Your task to perform on an android device: toggle notifications settings in the gmail app Image 0: 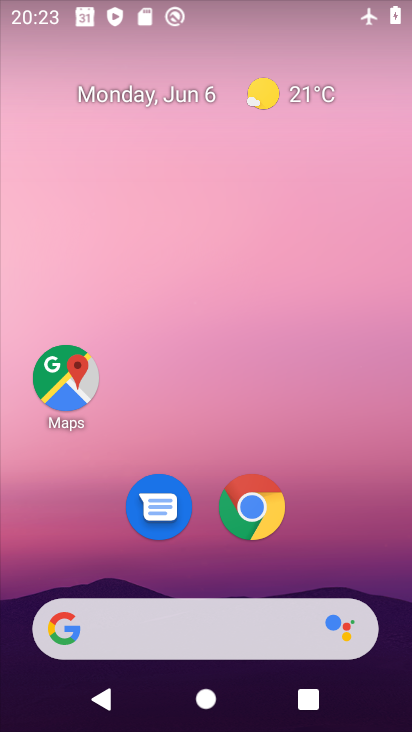
Step 0: drag from (221, 574) to (234, 2)
Your task to perform on an android device: toggle notifications settings in the gmail app Image 1: 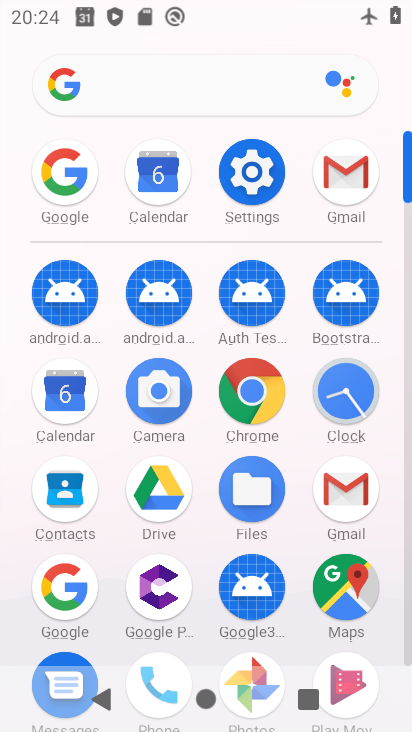
Step 1: click (252, 180)
Your task to perform on an android device: toggle notifications settings in the gmail app Image 2: 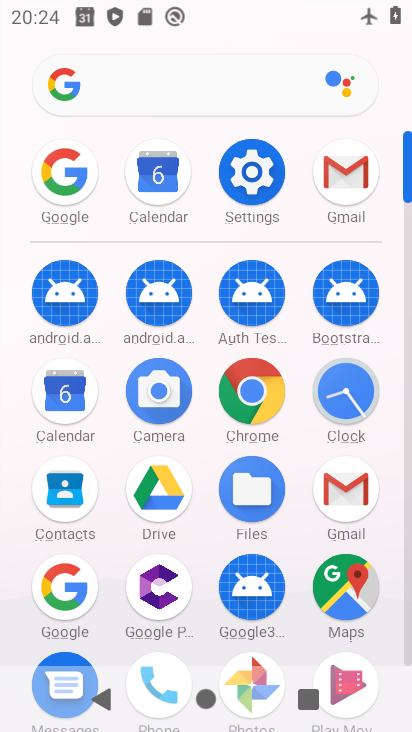
Step 2: click (322, 179)
Your task to perform on an android device: toggle notifications settings in the gmail app Image 3: 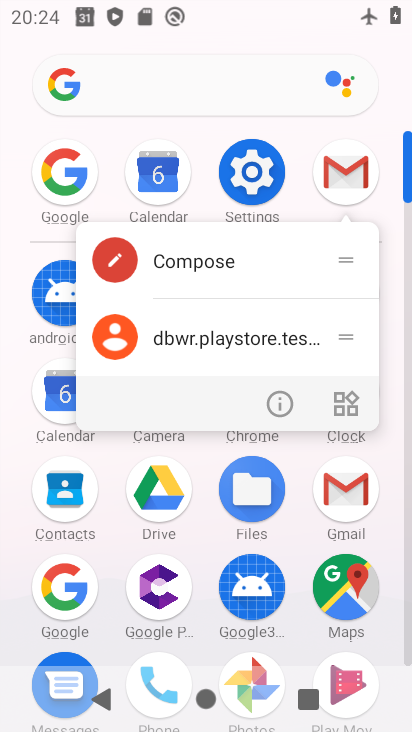
Step 3: click (345, 194)
Your task to perform on an android device: toggle notifications settings in the gmail app Image 4: 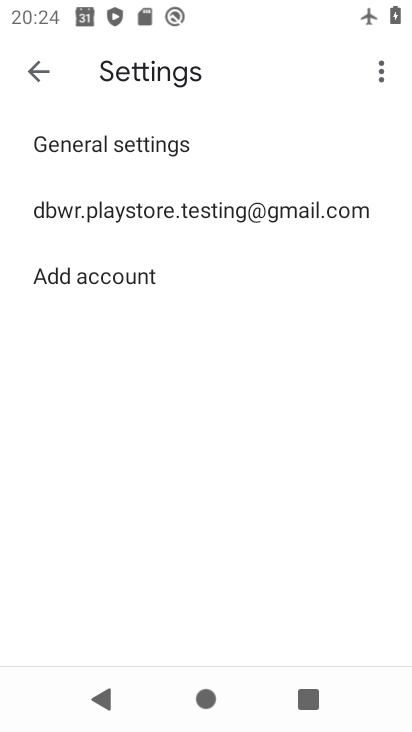
Step 4: click (263, 211)
Your task to perform on an android device: toggle notifications settings in the gmail app Image 5: 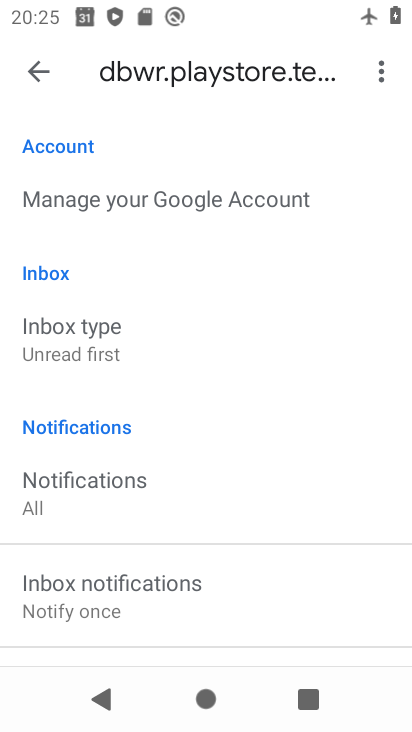
Step 5: drag from (106, 596) to (77, 291)
Your task to perform on an android device: toggle notifications settings in the gmail app Image 6: 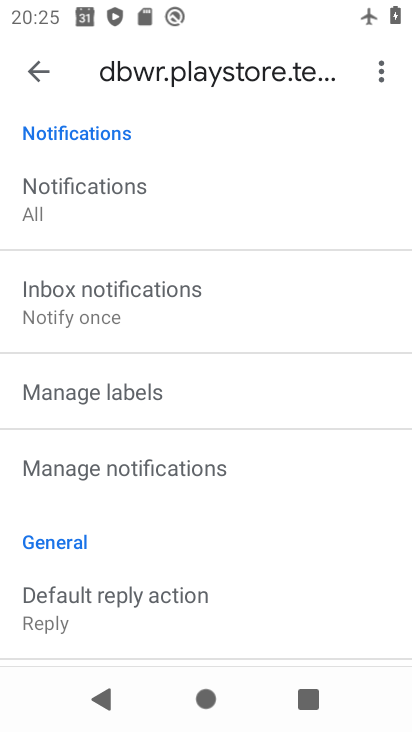
Step 6: click (137, 468)
Your task to perform on an android device: toggle notifications settings in the gmail app Image 7: 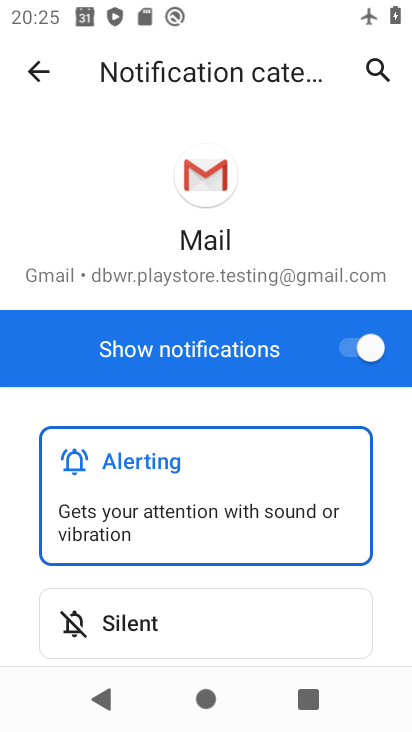
Step 7: click (355, 356)
Your task to perform on an android device: toggle notifications settings in the gmail app Image 8: 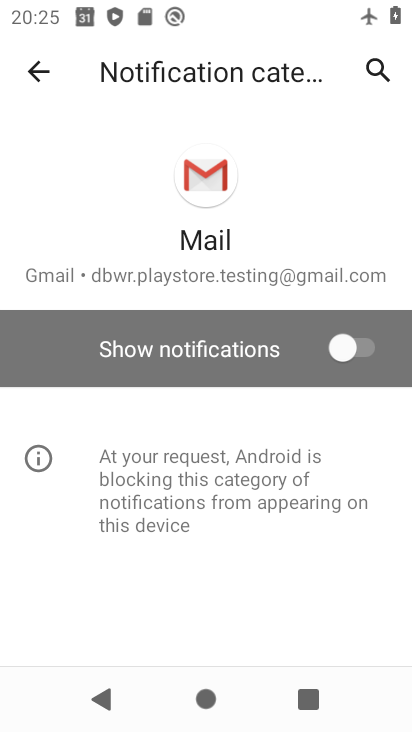
Step 8: task complete